Your task to perform on an android device: allow notifications from all sites in the chrome app Image 0: 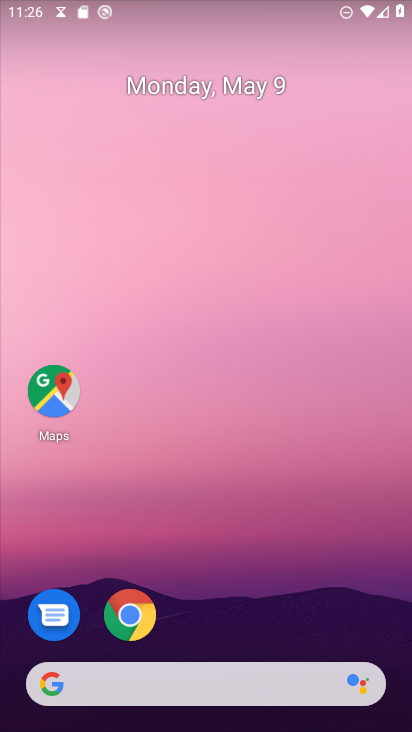
Step 0: click (130, 618)
Your task to perform on an android device: allow notifications from all sites in the chrome app Image 1: 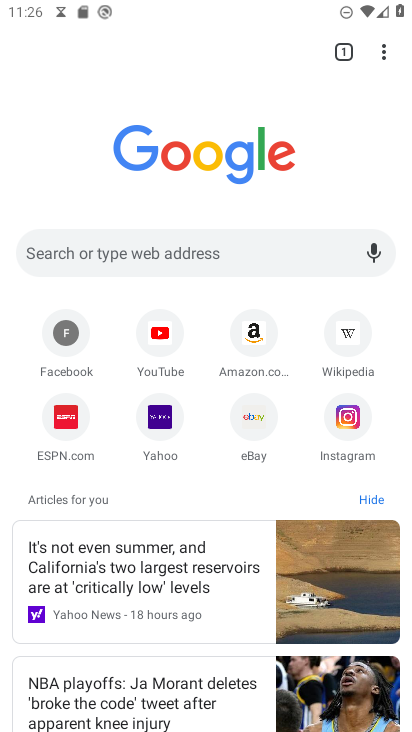
Step 1: click (385, 59)
Your task to perform on an android device: allow notifications from all sites in the chrome app Image 2: 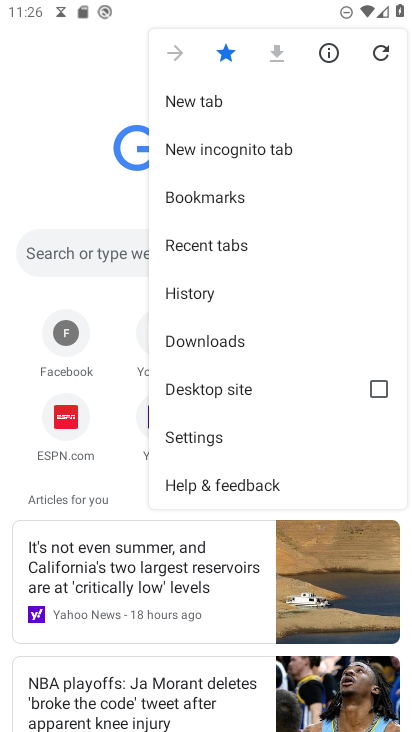
Step 2: click (207, 431)
Your task to perform on an android device: allow notifications from all sites in the chrome app Image 3: 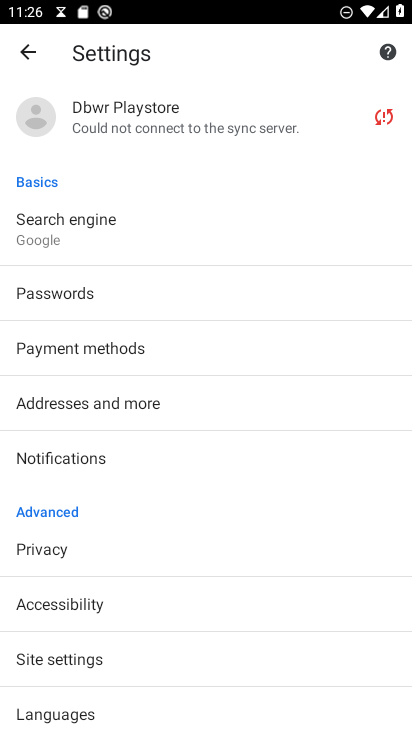
Step 3: click (77, 657)
Your task to perform on an android device: allow notifications from all sites in the chrome app Image 4: 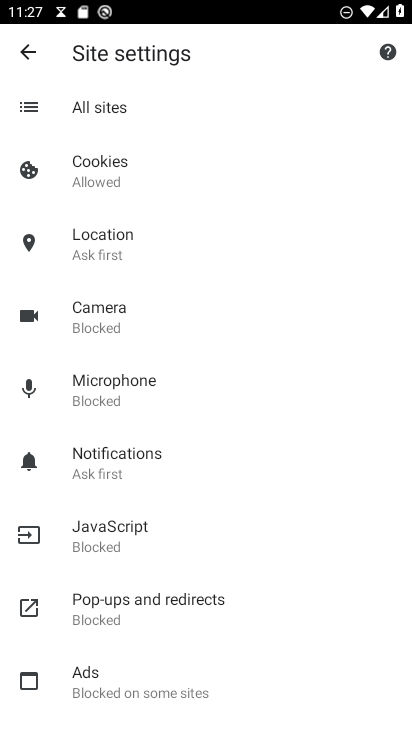
Step 4: click (105, 458)
Your task to perform on an android device: allow notifications from all sites in the chrome app Image 5: 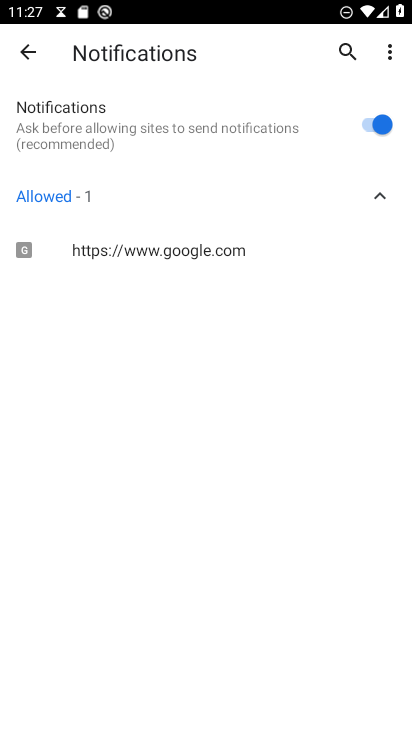
Step 5: task complete